Your task to perform on an android device: allow notifications from all sites in the chrome app Image 0: 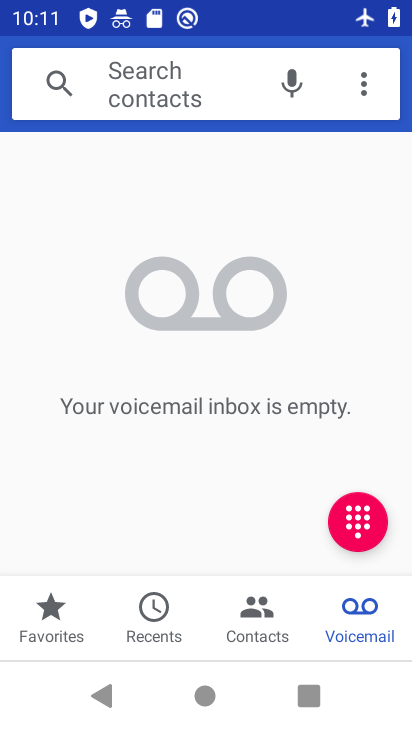
Step 0: press home button
Your task to perform on an android device: allow notifications from all sites in the chrome app Image 1: 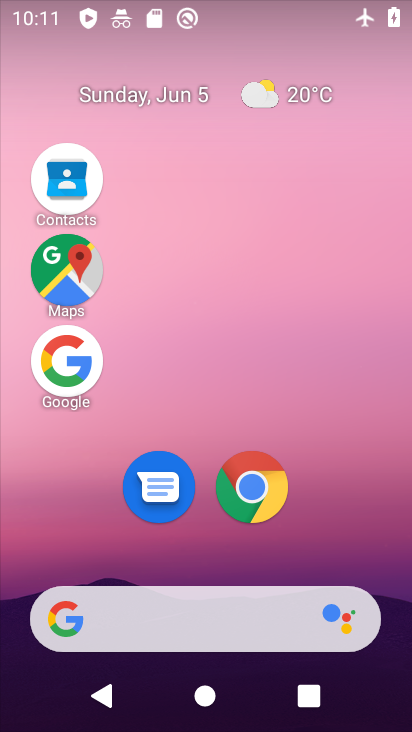
Step 1: click (280, 478)
Your task to perform on an android device: allow notifications from all sites in the chrome app Image 2: 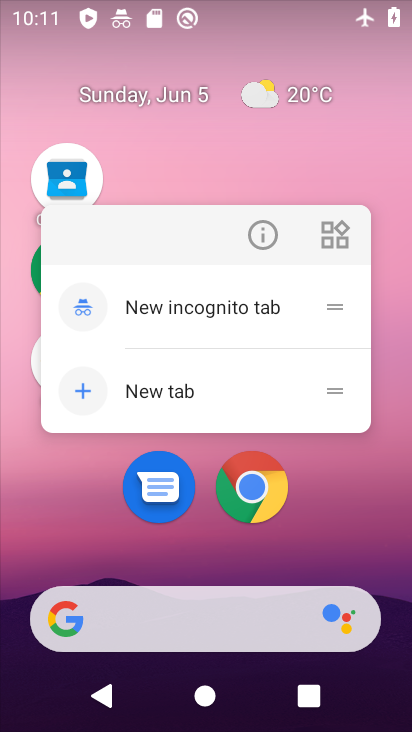
Step 2: click (267, 495)
Your task to perform on an android device: allow notifications from all sites in the chrome app Image 3: 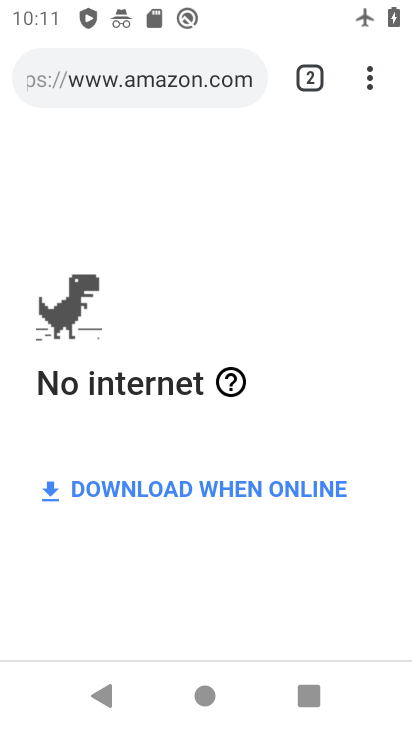
Step 3: click (382, 69)
Your task to perform on an android device: allow notifications from all sites in the chrome app Image 4: 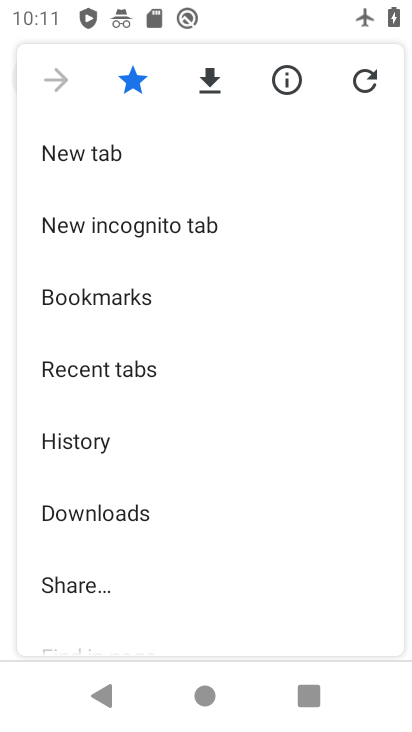
Step 4: drag from (185, 435) to (243, 178)
Your task to perform on an android device: allow notifications from all sites in the chrome app Image 5: 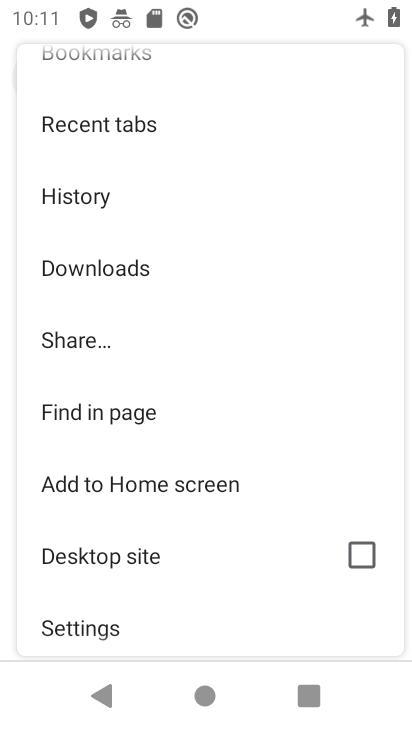
Step 5: drag from (133, 571) to (187, 245)
Your task to perform on an android device: allow notifications from all sites in the chrome app Image 6: 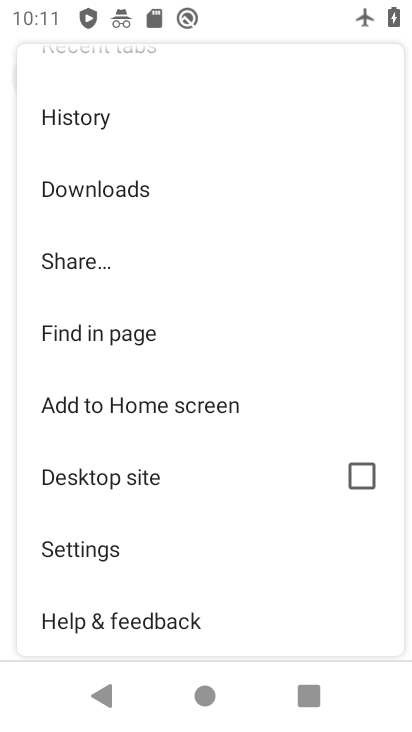
Step 6: click (86, 552)
Your task to perform on an android device: allow notifications from all sites in the chrome app Image 7: 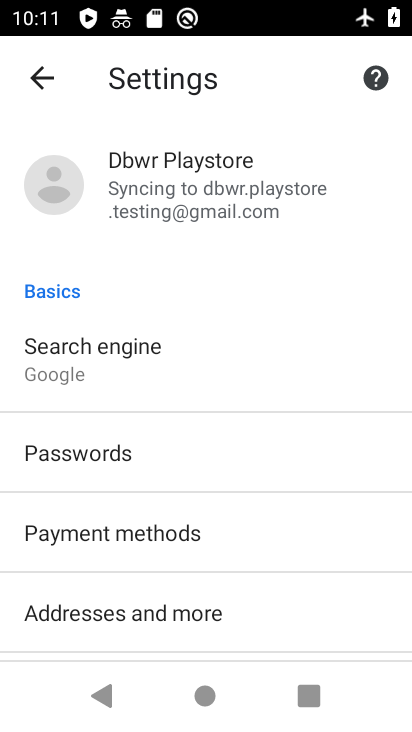
Step 7: drag from (122, 542) to (281, 9)
Your task to perform on an android device: allow notifications from all sites in the chrome app Image 8: 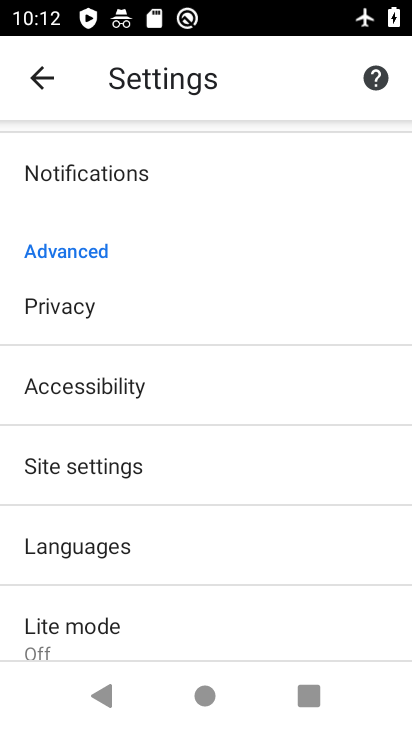
Step 8: click (121, 173)
Your task to perform on an android device: allow notifications from all sites in the chrome app Image 9: 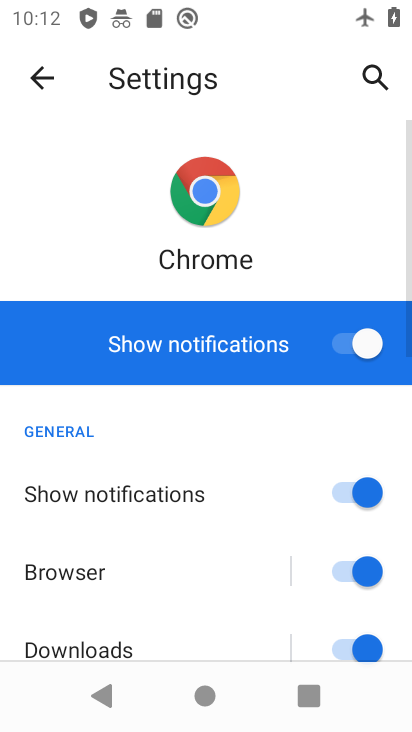
Step 9: task complete